Your task to perform on an android device: When is my next meeting? Image 0: 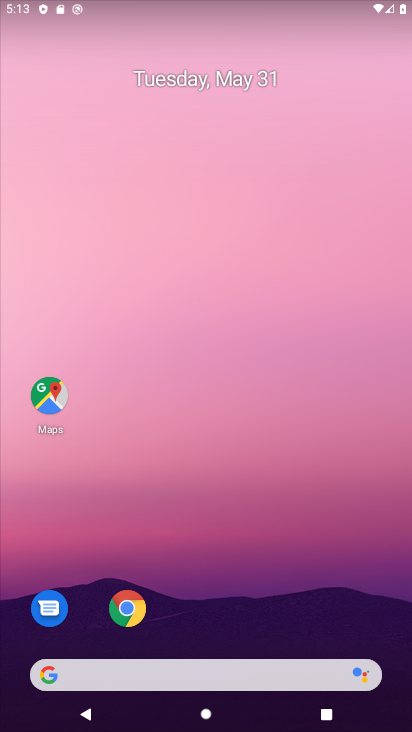
Step 0: drag from (246, 551) to (264, 166)
Your task to perform on an android device: When is my next meeting? Image 1: 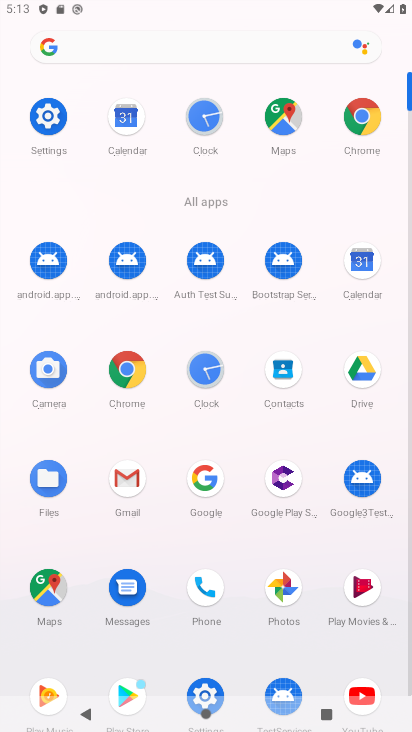
Step 1: click (128, 118)
Your task to perform on an android device: When is my next meeting? Image 2: 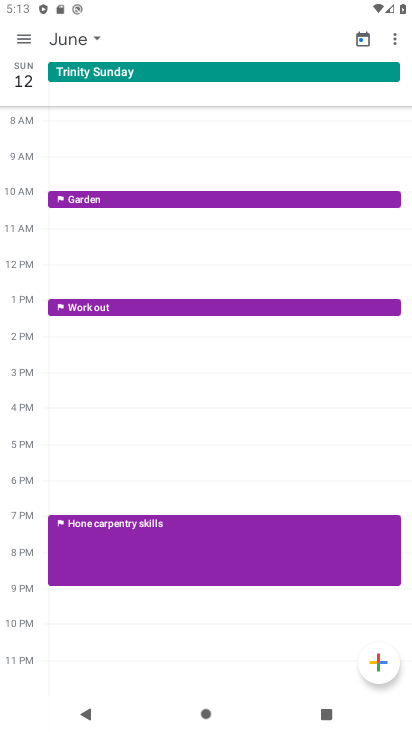
Step 2: click (364, 40)
Your task to perform on an android device: When is my next meeting? Image 3: 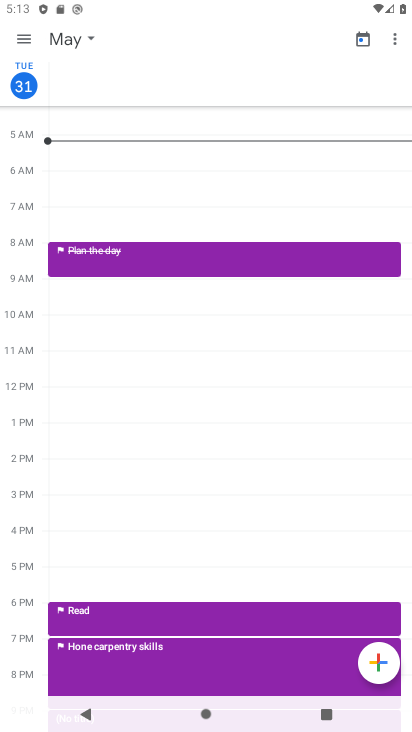
Step 3: click (89, 41)
Your task to perform on an android device: When is my next meeting? Image 4: 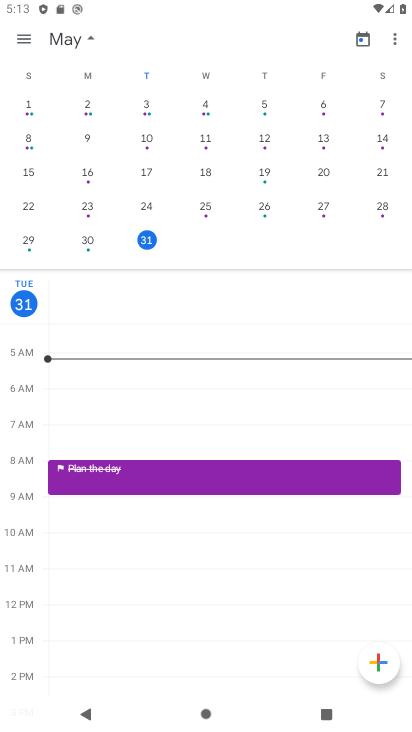
Step 4: drag from (354, 182) to (4, 183)
Your task to perform on an android device: When is my next meeting? Image 5: 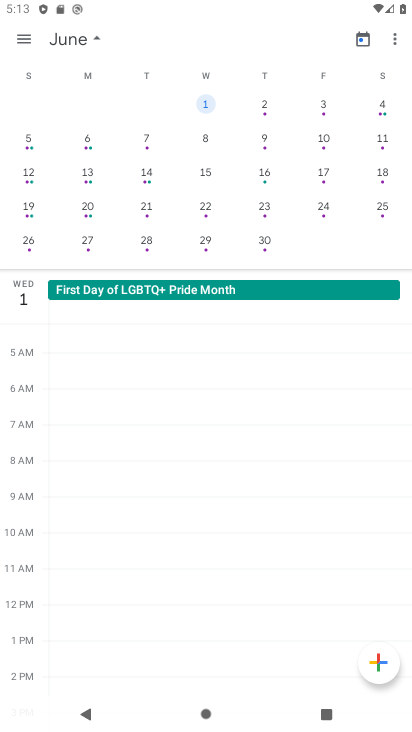
Step 5: click (209, 104)
Your task to perform on an android device: When is my next meeting? Image 6: 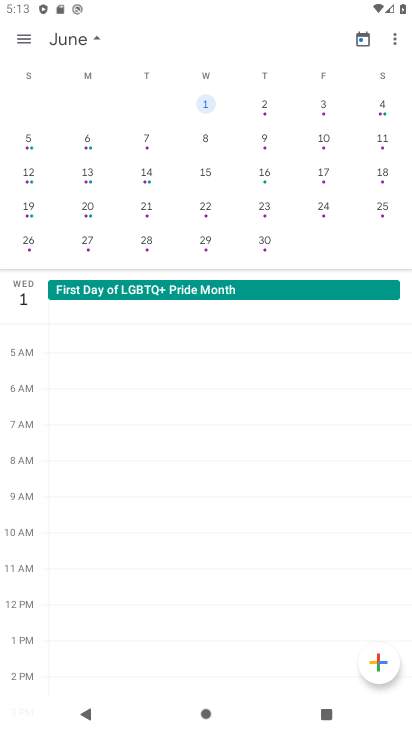
Step 6: click (31, 36)
Your task to perform on an android device: When is my next meeting? Image 7: 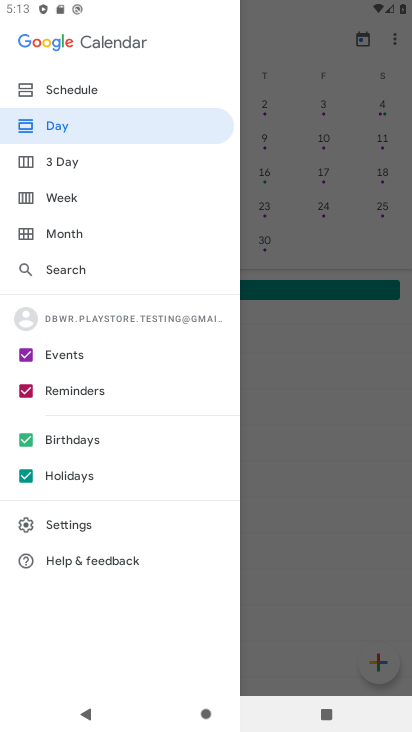
Step 7: click (89, 92)
Your task to perform on an android device: When is my next meeting? Image 8: 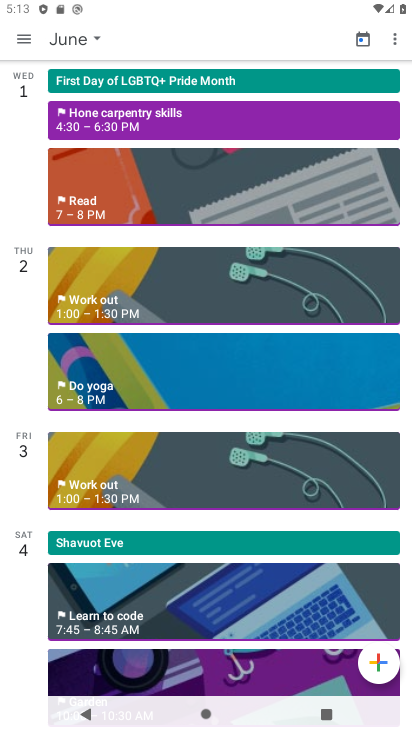
Step 8: task complete